Your task to perform on an android device: set an alarm Image 0: 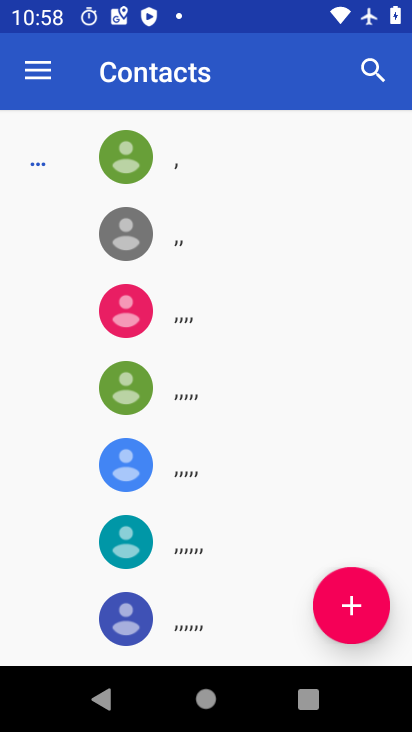
Step 0: press back button
Your task to perform on an android device: set an alarm Image 1: 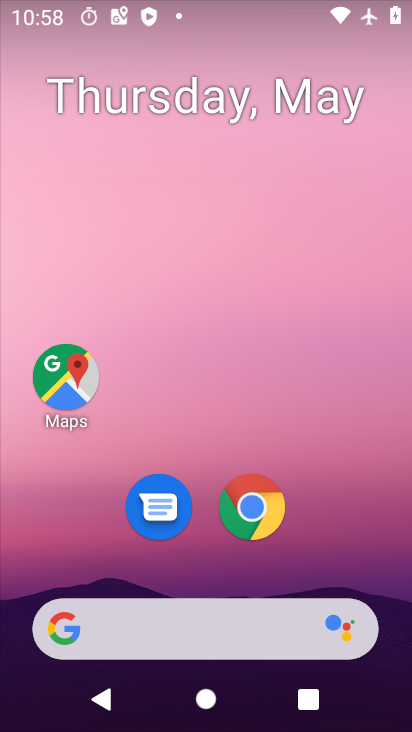
Step 1: drag from (326, 539) to (221, 62)
Your task to perform on an android device: set an alarm Image 2: 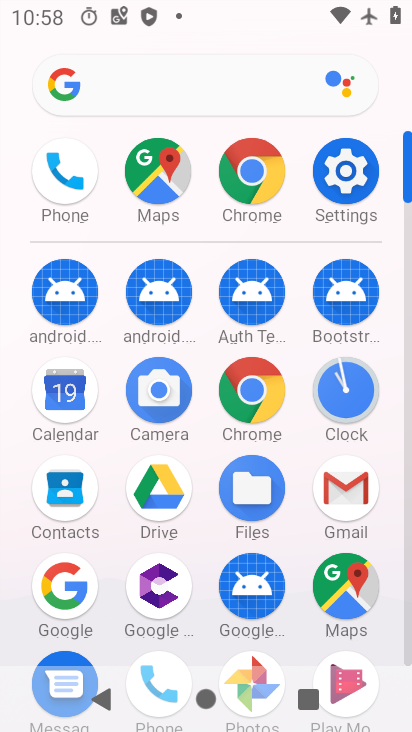
Step 2: click (346, 384)
Your task to perform on an android device: set an alarm Image 3: 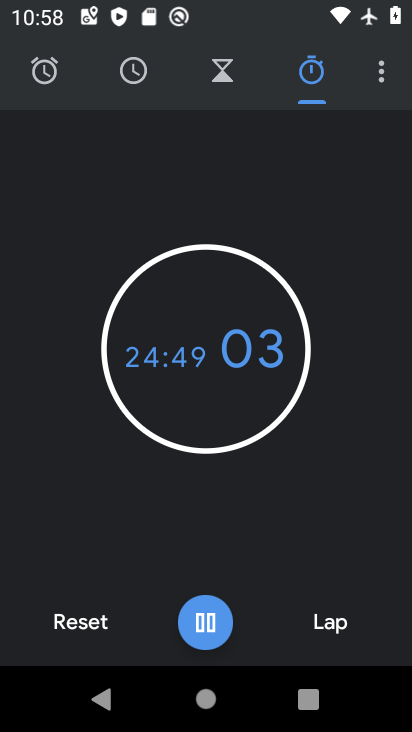
Step 3: click (41, 65)
Your task to perform on an android device: set an alarm Image 4: 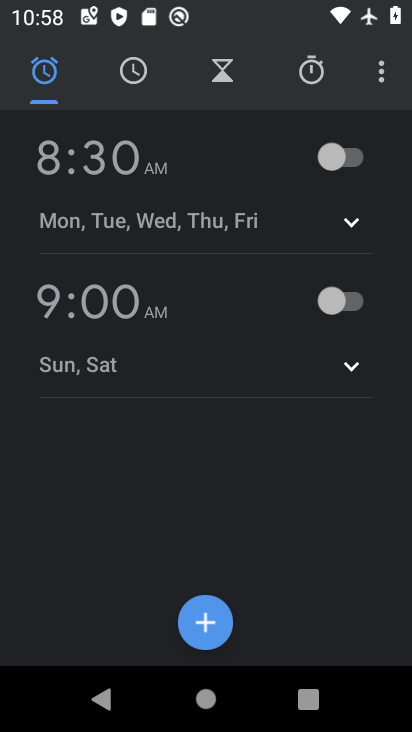
Step 4: click (201, 622)
Your task to perform on an android device: set an alarm Image 5: 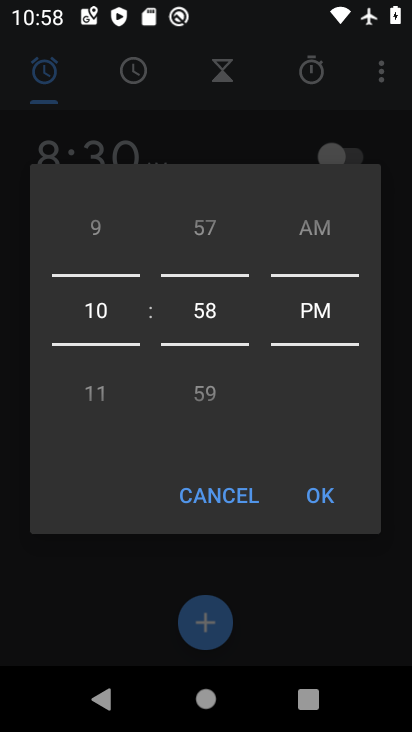
Step 5: drag from (113, 262) to (115, 444)
Your task to perform on an android device: set an alarm Image 6: 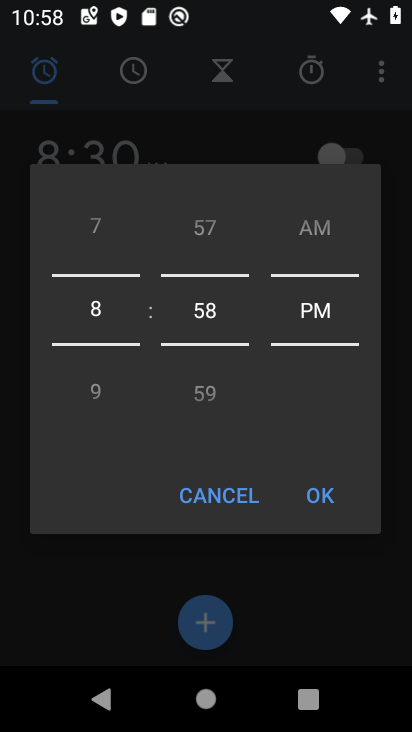
Step 6: drag from (195, 373) to (193, 262)
Your task to perform on an android device: set an alarm Image 7: 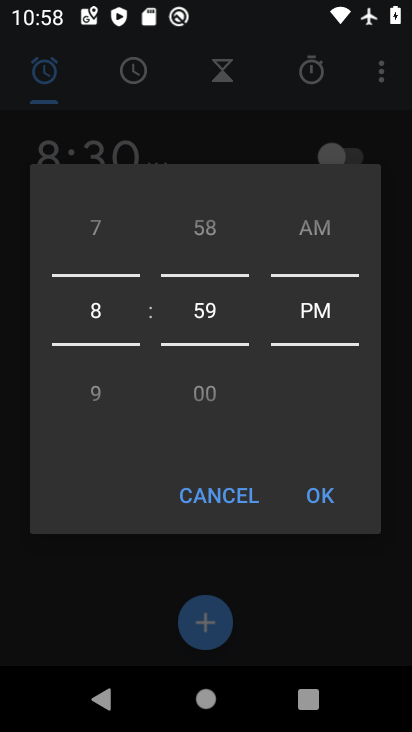
Step 7: click (313, 499)
Your task to perform on an android device: set an alarm Image 8: 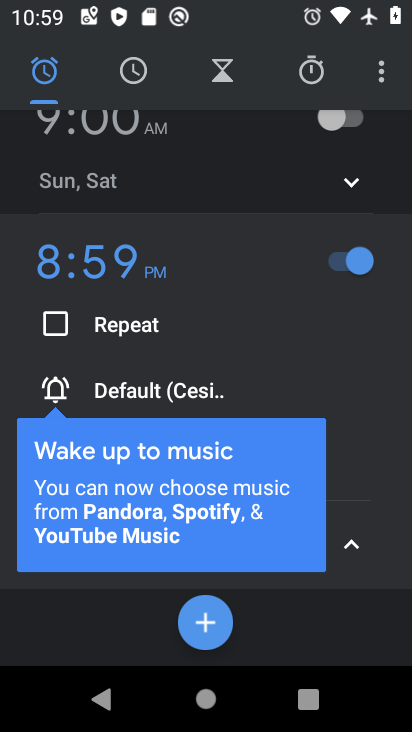
Step 8: task complete